Your task to perform on an android device: Search for pizza restaurants on Maps Image 0: 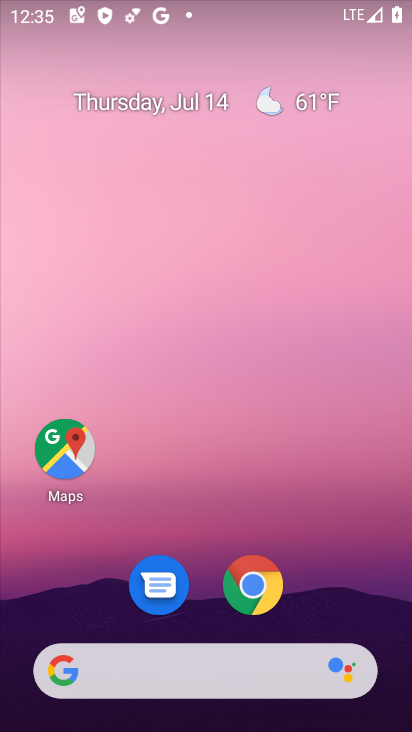
Step 0: click (67, 449)
Your task to perform on an android device: Search for pizza restaurants on Maps Image 1: 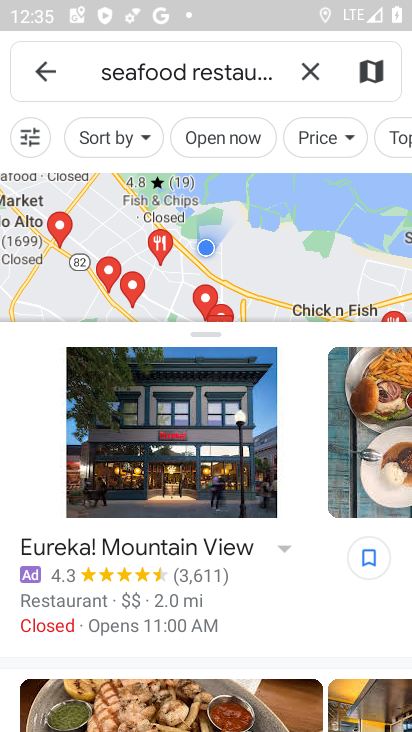
Step 1: click (308, 72)
Your task to perform on an android device: Search for pizza restaurants on Maps Image 2: 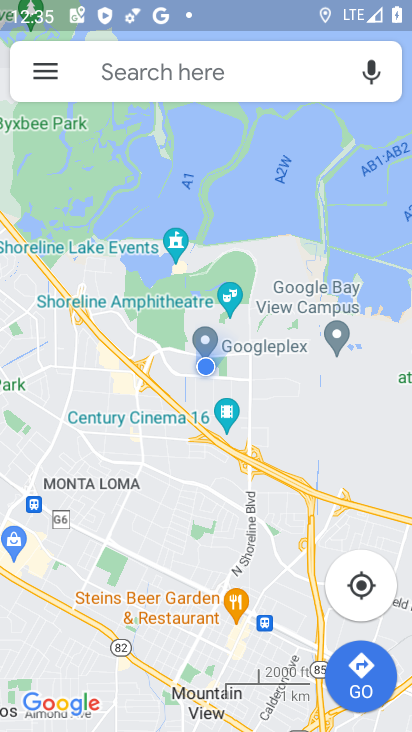
Step 2: click (227, 68)
Your task to perform on an android device: Search for pizza restaurants on Maps Image 3: 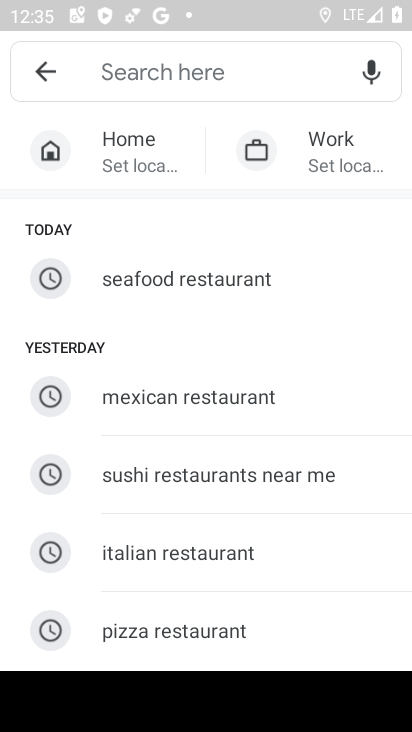
Step 3: click (179, 632)
Your task to perform on an android device: Search for pizza restaurants on Maps Image 4: 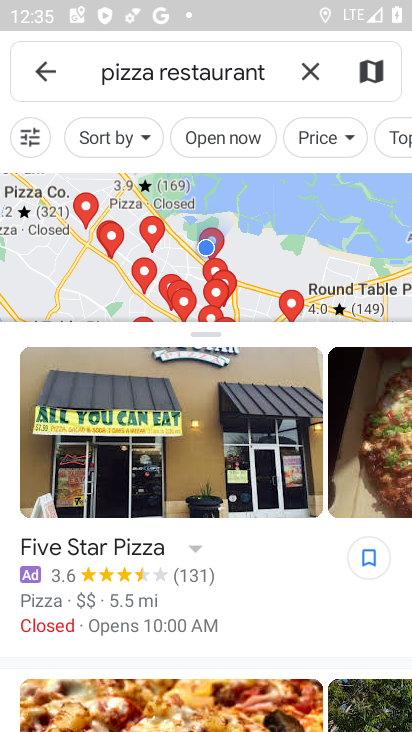
Step 4: task complete